Your task to perform on an android device: install app "Move to iOS" Image 0: 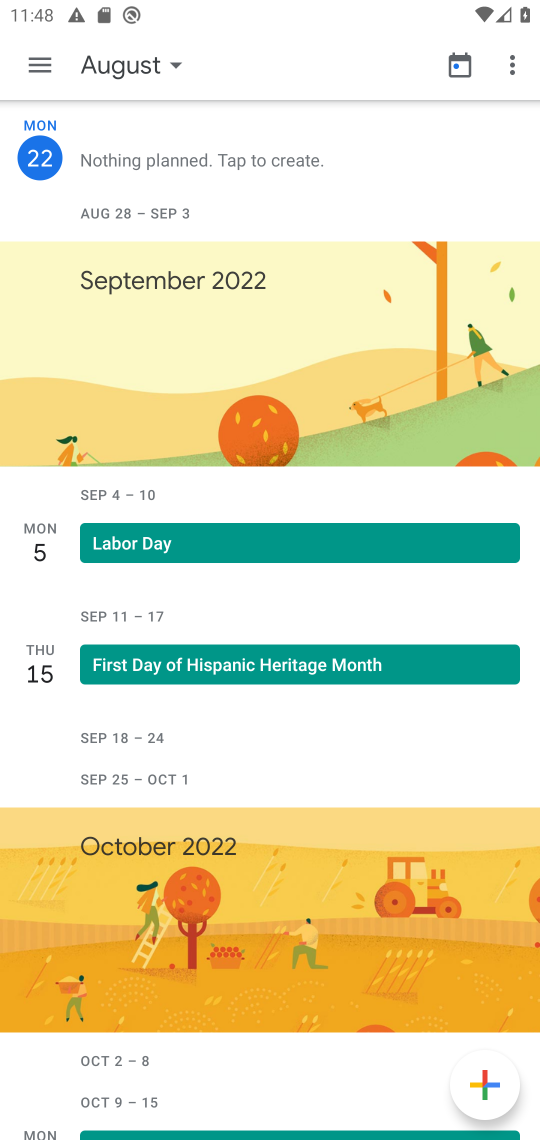
Step 0: press home button
Your task to perform on an android device: install app "Move to iOS" Image 1: 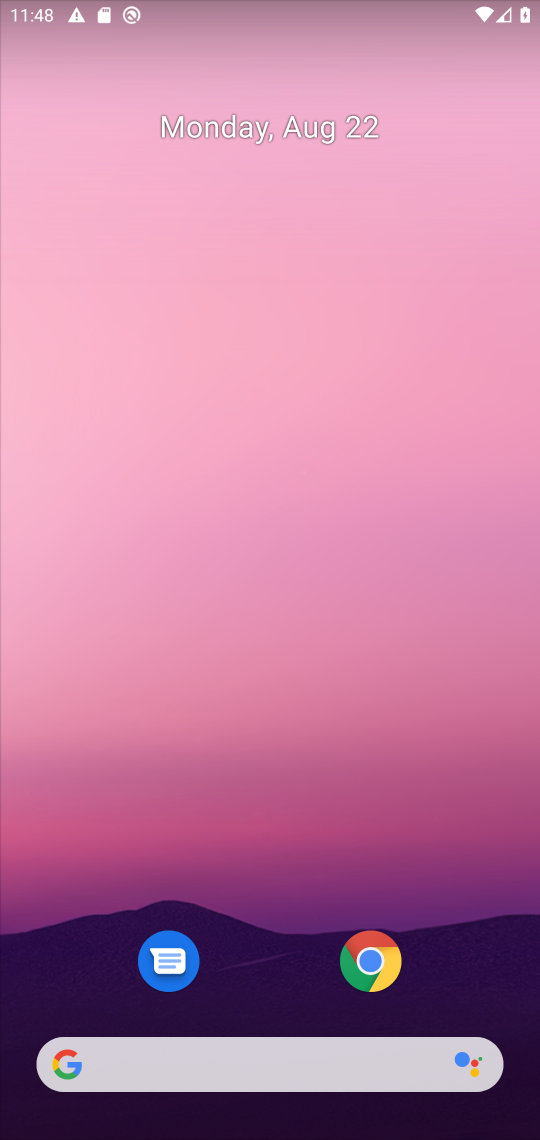
Step 1: drag from (264, 1023) to (426, 48)
Your task to perform on an android device: install app "Move to iOS" Image 2: 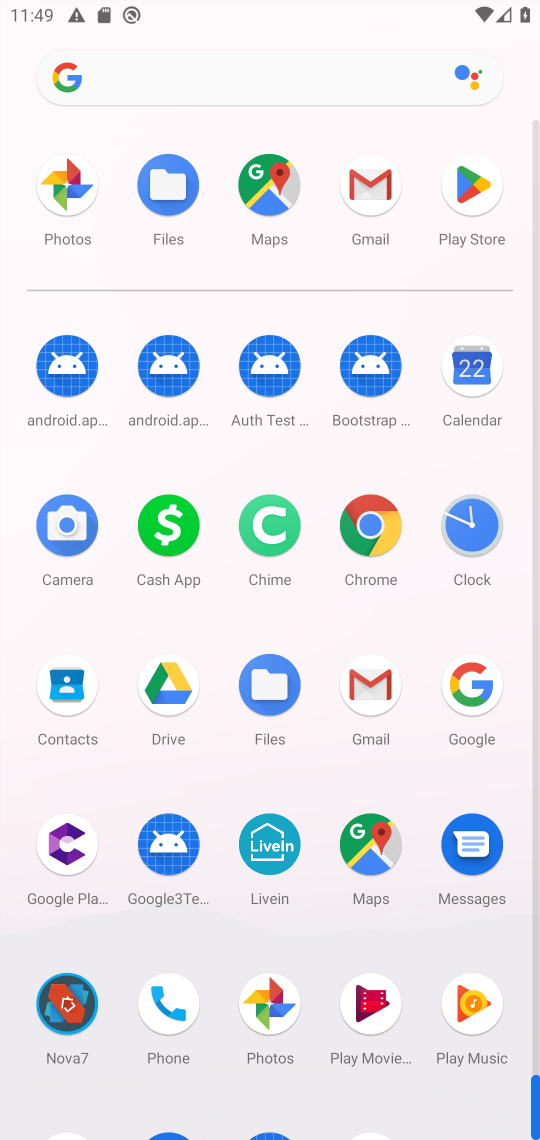
Step 2: click (461, 206)
Your task to perform on an android device: install app "Move to iOS" Image 3: 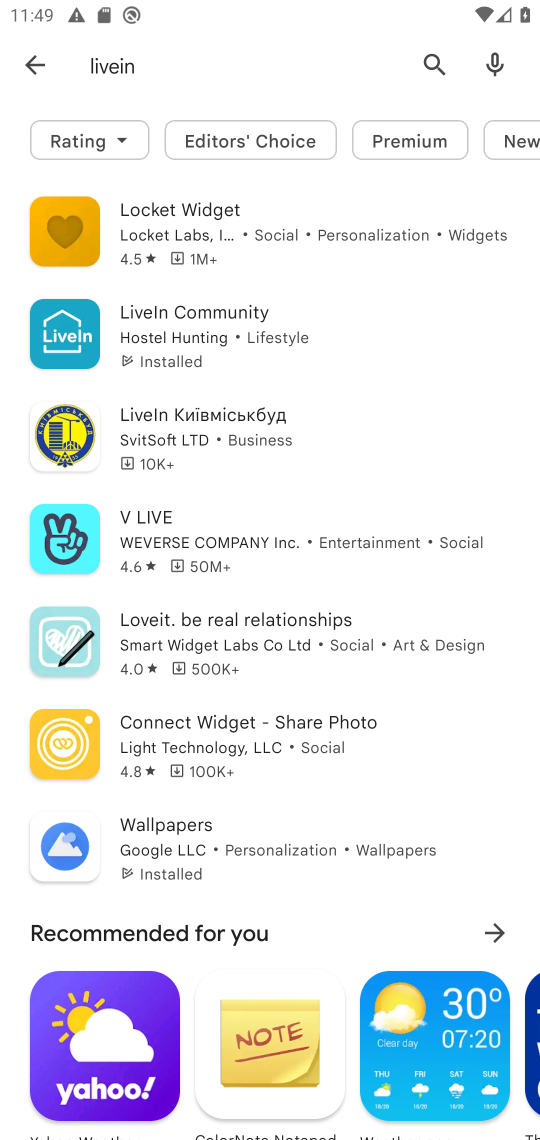
Step 3: click (412, 62)
Your task to perform on an android device: install app "Move to iOS" Image 4: 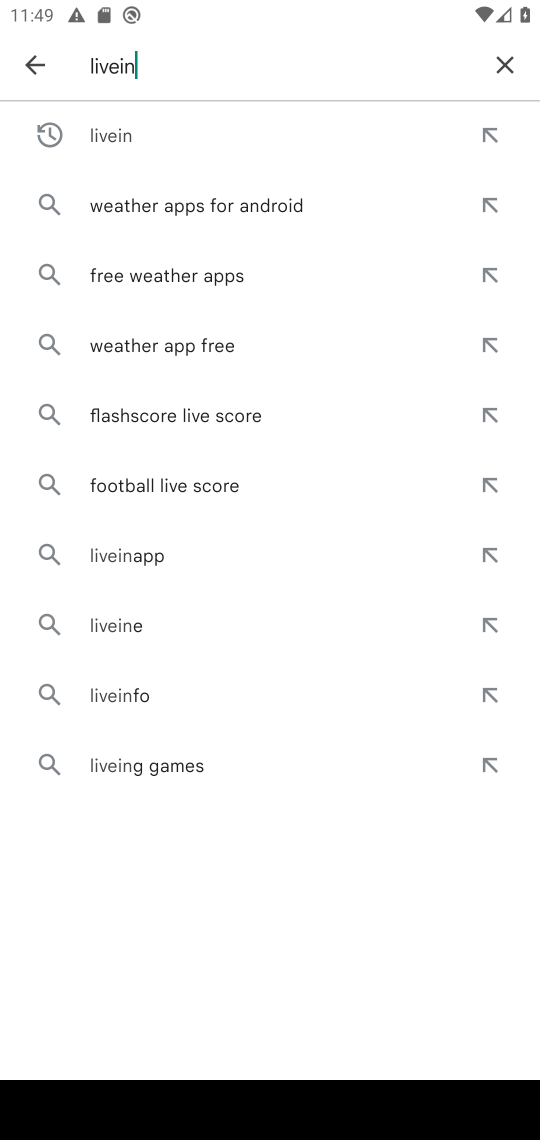
Step 4: click (499, 62)
Your task to perform on an android device: install app "Move to iOS" Image 5: 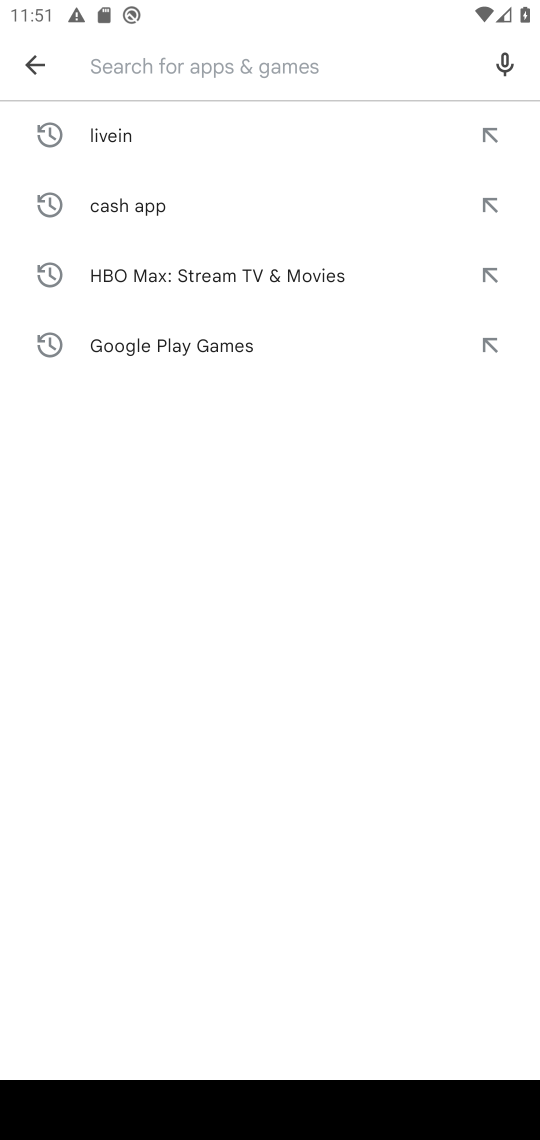
Step 5: type "move iso"
Your task to perform on an android device: install app "Move to iOS" Image 6: 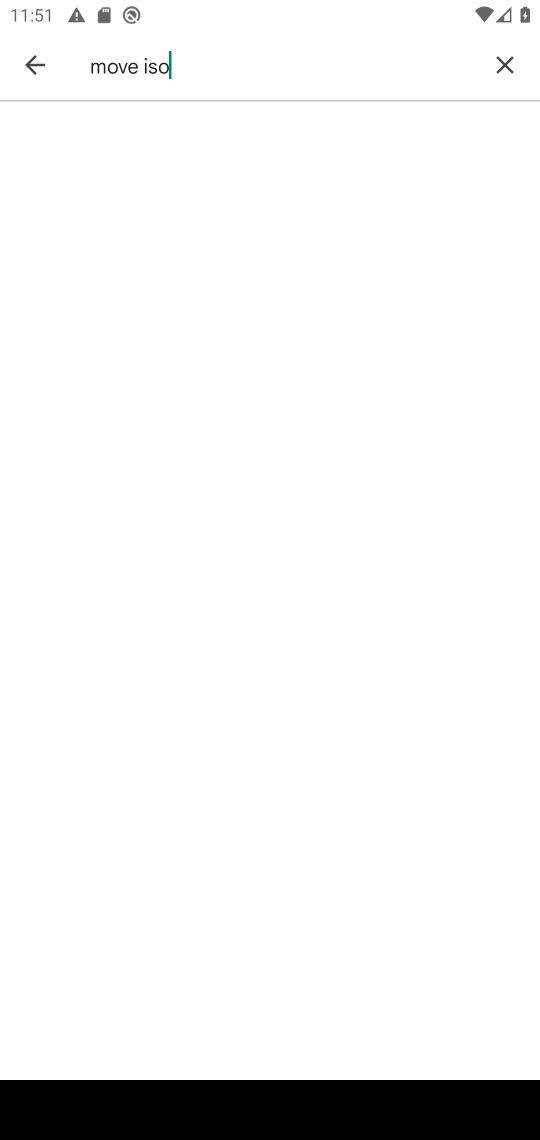
Step 6: click (179, 161)
Your task to perform on an android device: install app "Move to iOS" Image 7: 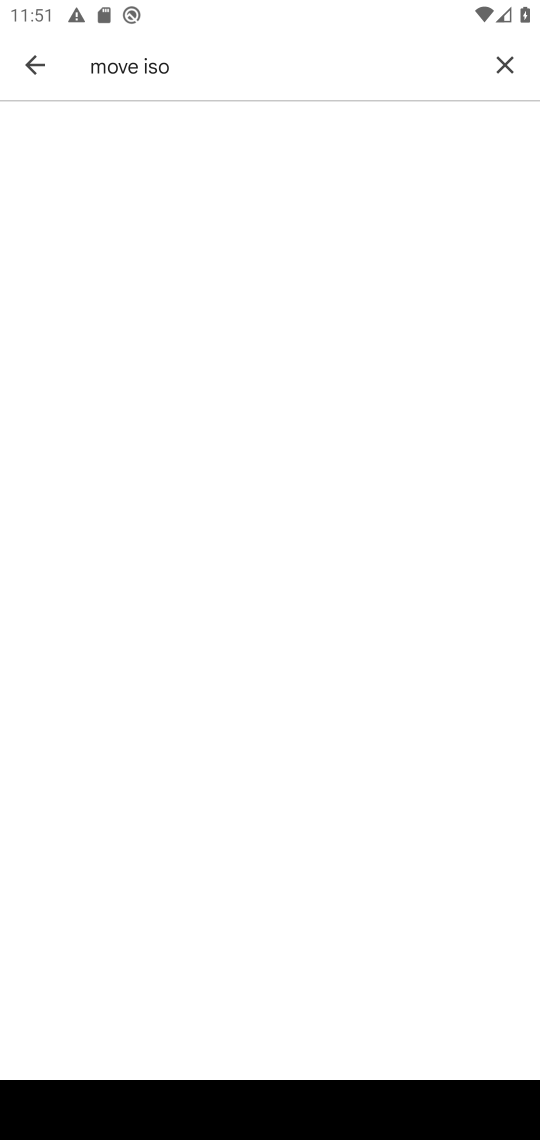
Step 7: task complete